Your task to perform on an android device: Turn on the flashlight Image 0: 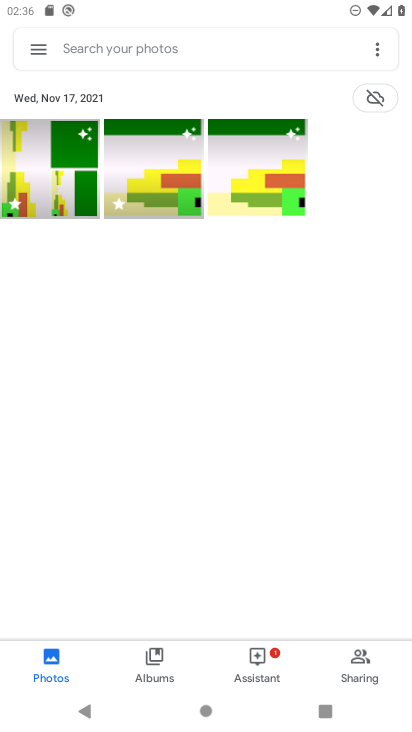
Step 0: press home button
Your task to perform on an android device: Turn on the flashlight Image 1: 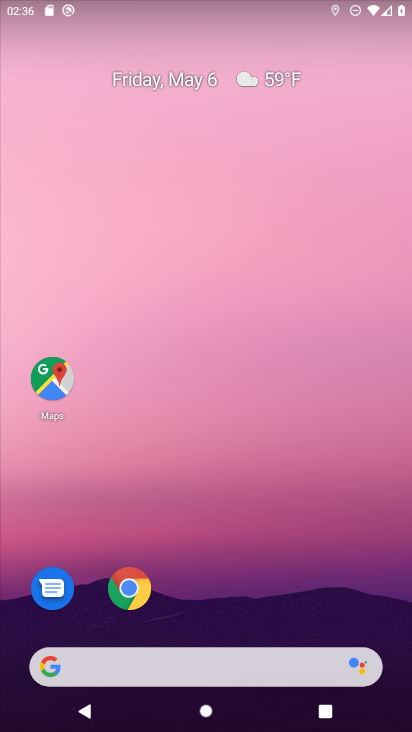
Step 1: drag from (183, 610) to (294, 19)
Your task to perform on an android device: Turn on the flashlight Image 2: 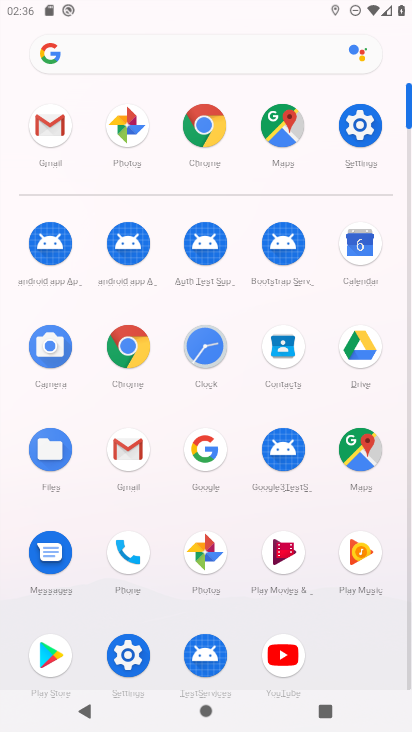
Step 2: click (350, 146)
Your task to perform on an android device: Turn on the flashlight Image 3: 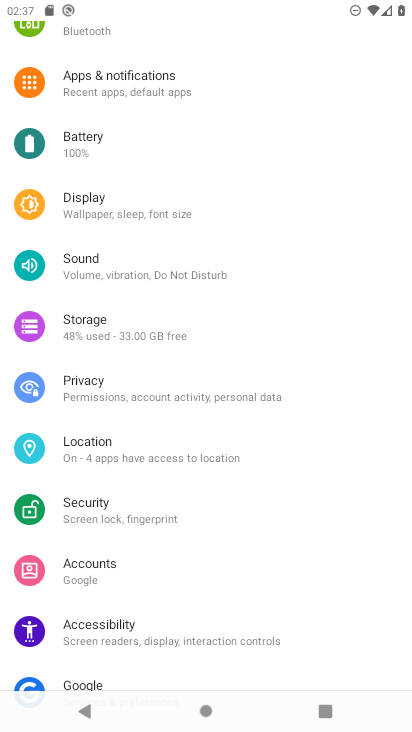
Step 3: task complete